Your task to perform on an android device: Check the news Image 0: 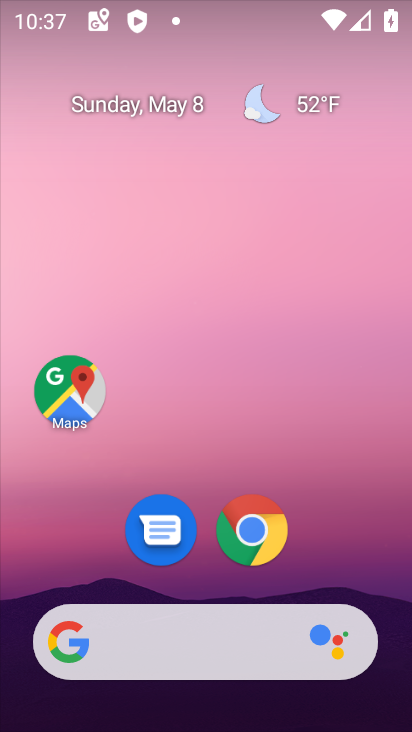
Step 0: drag from (355, 561) to (336, 124)
Your task to perform on an android device: Check the news Image 1: 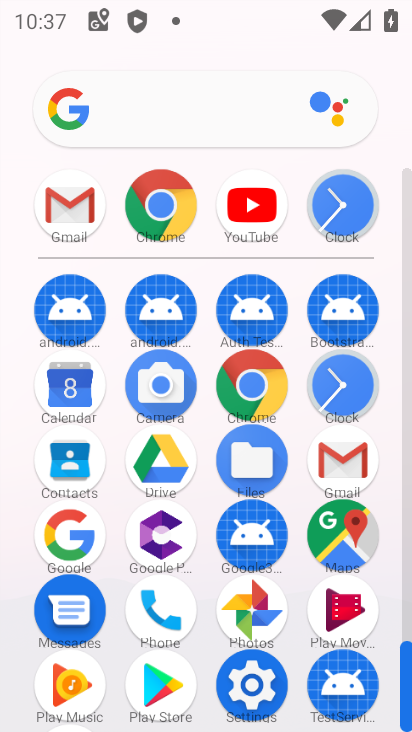
Step 1: click (341, 474)
Your task to perform on an android device: Check the news Image 2: 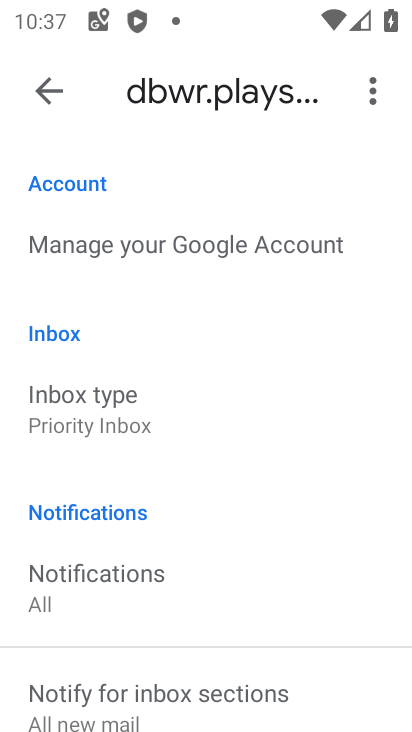
Step 2: drag from (231, 582) to (199, 280)
Your task to perform on an android device: Check the news Image 3: 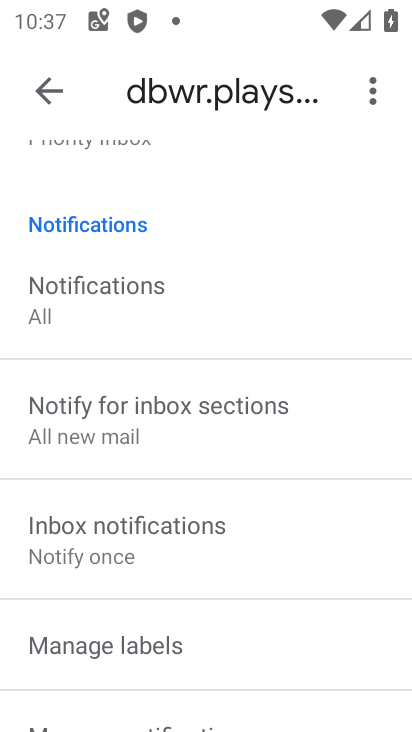
Step 3: drag from (284, 592) to (238, 318)
Your task to perform on an android device: Check the news Image 4: 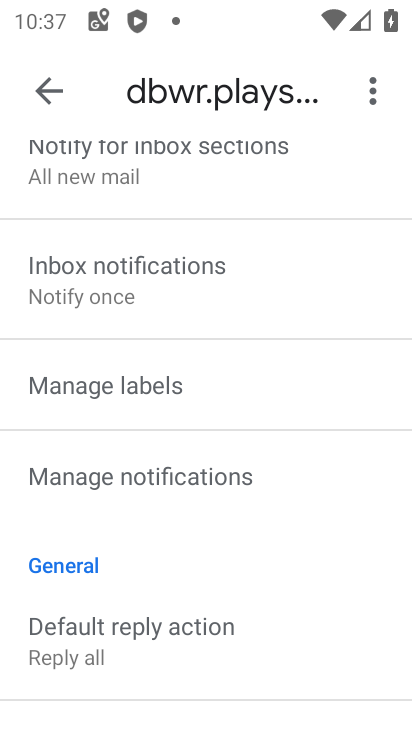
Step 4: drag from (306, 251) to (282, 565)
Your task to perform on an android device: Check the news Image 5: 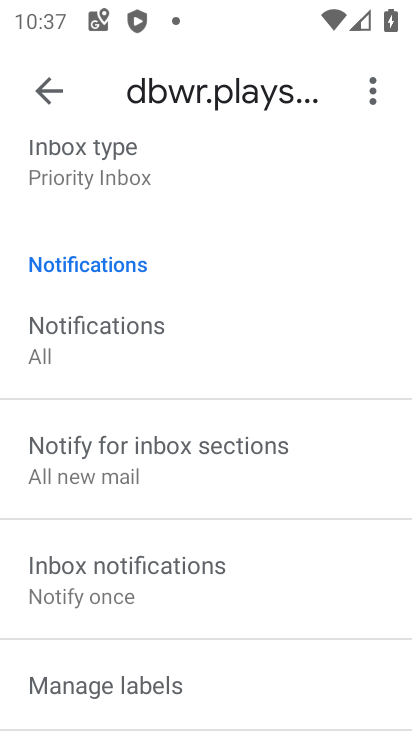
Step 5: press home button
Your task to perform on an android device: Check the news Image 6: 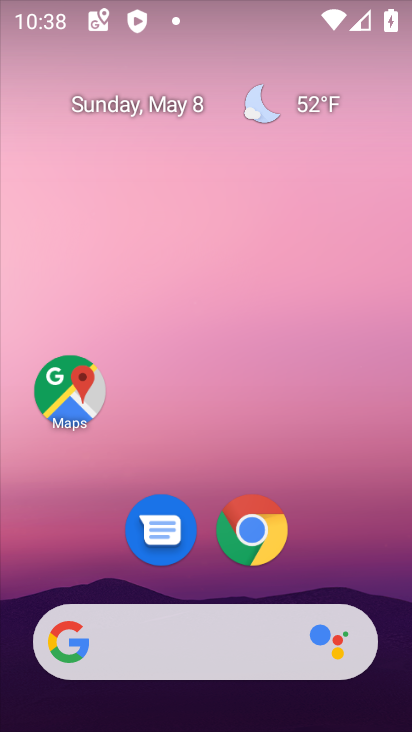
Step 6: drag from (370, 568) to (338, 90)
Your task to perform on an android device: Check the news Image 7: 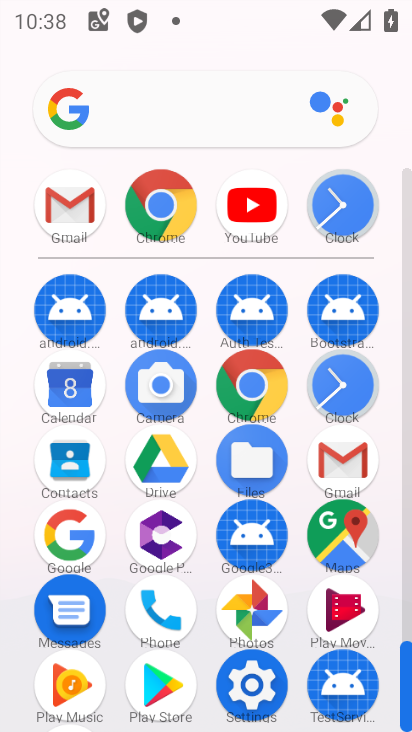
Step 7: click (259, 405)
Your task to perform on an android device: Check the news Image 8: 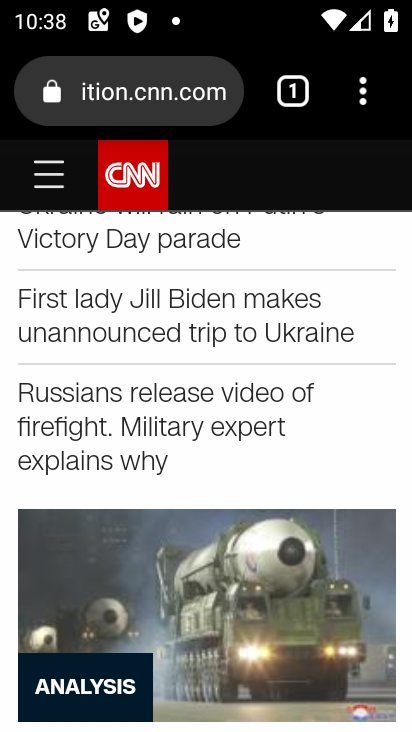
Step 8: click (166, 97)
Your task to perform on an android device: Check the news Image 9: 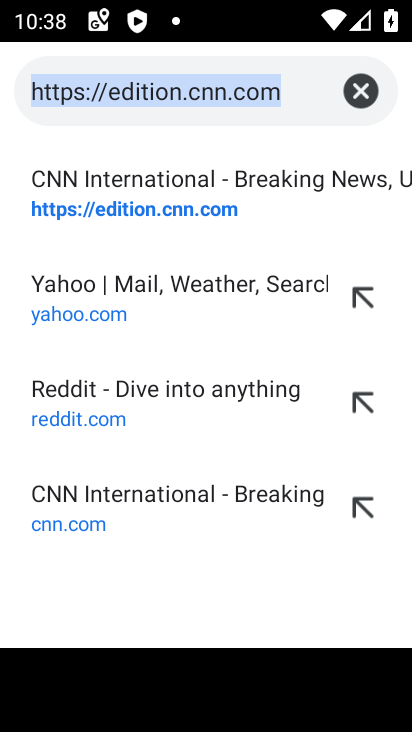
Step 9: click (353, 92)
Your task to perform on an android device: Check the news Image 10: 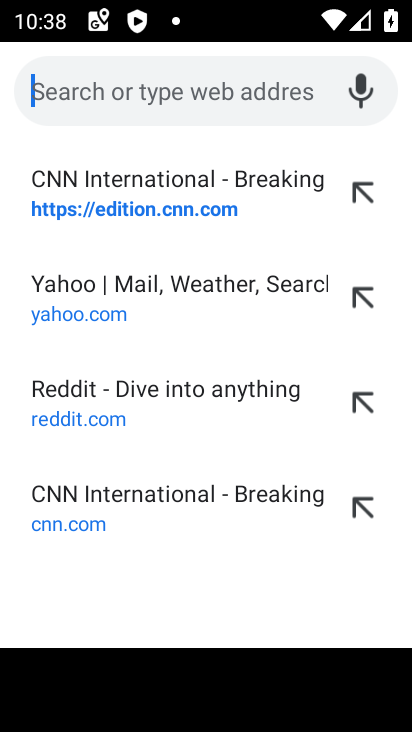
Step 10: type "check the news"
Your task to perform on an android device: Check the news Image 11: 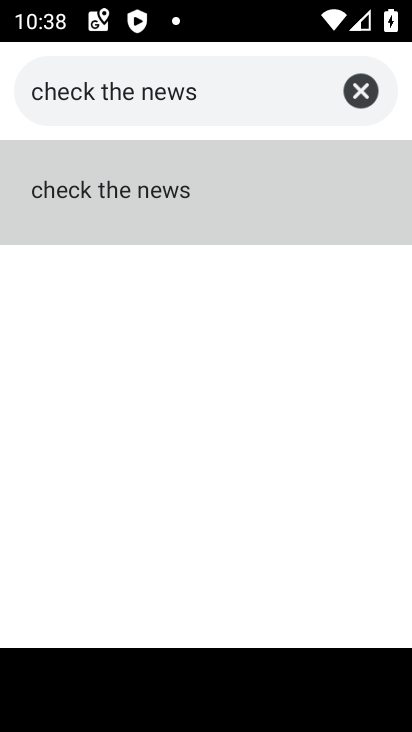
Step 11: click (157, 184)
Your task to perform on an android device: Check the news Image 12: 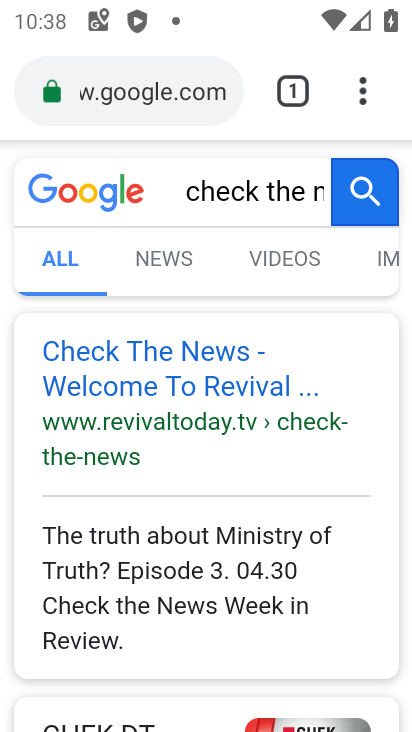
Step 12: task complete